Your task to perform on an android device: Open internet settings Image 0: 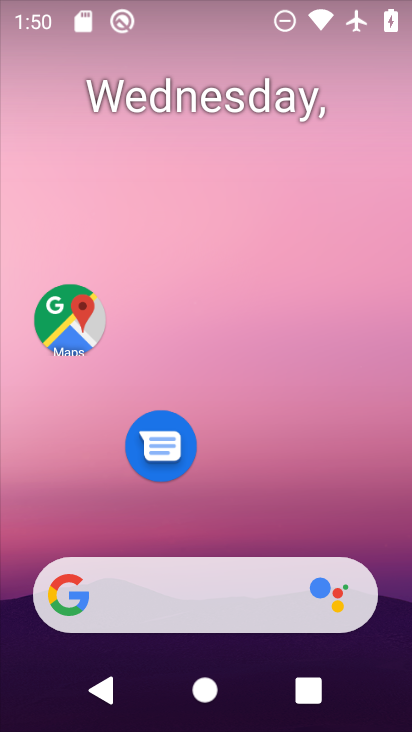
Step 0: drag from (237, 446) to (204, 18)
Your task to perform on an android device: Open internet settings Image 1: 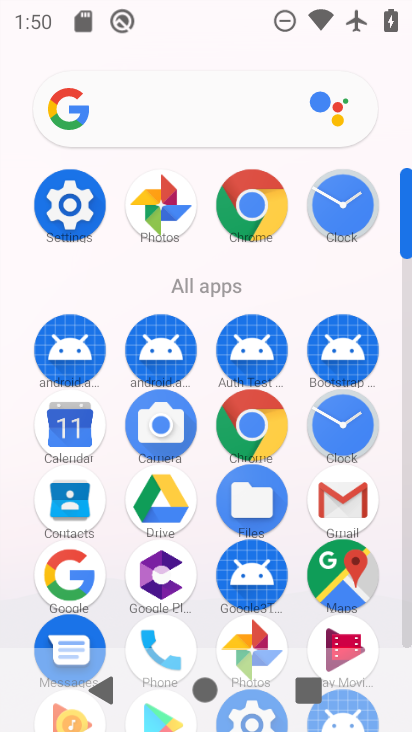
Step 1: click (78, 190)
Your task to perform on an android device: Open internet settings Image 2: 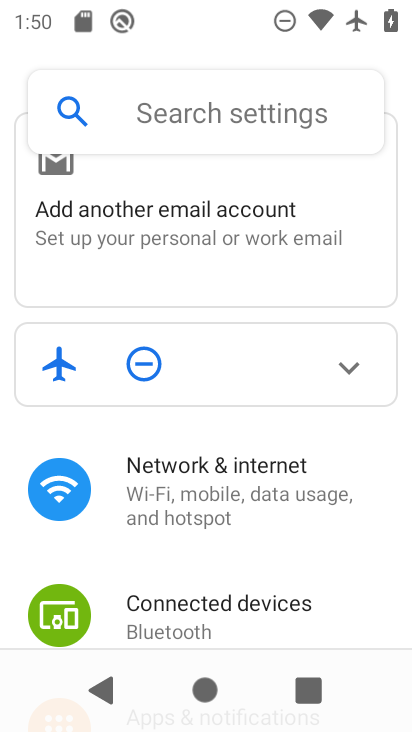
Step 2: click (259, 538)
Your task to perform on an android device: Open internet settings Image 3: 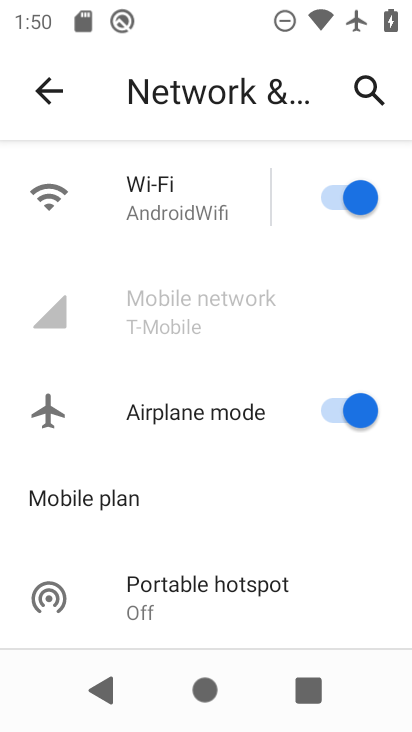
Step 3: task complete